Your task to perform on an android device: Turn off the flashlight Image 0: 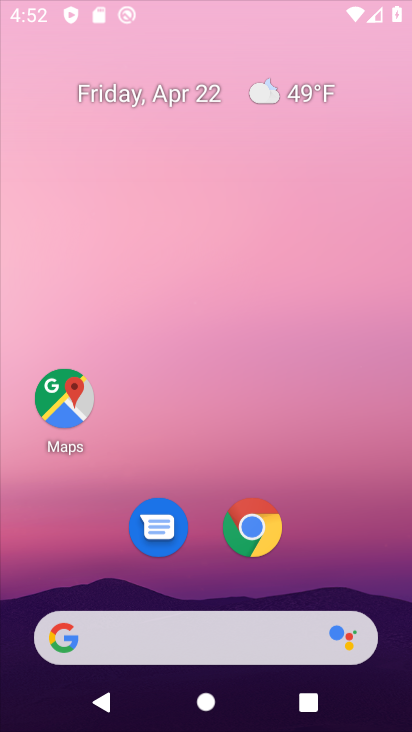
Step 0: drag from (170, 200) to (204, 186)
Your task to perform on an android device: Turn off the flashlight Image 1: 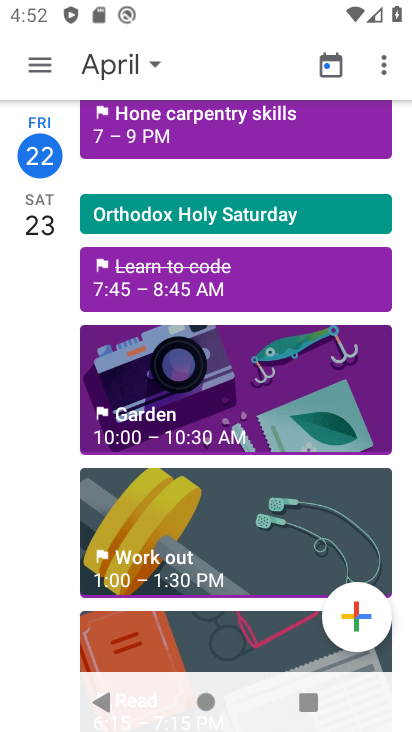
Step 1: task complete